Your task to perform on an android device: show emergency info Image 0: 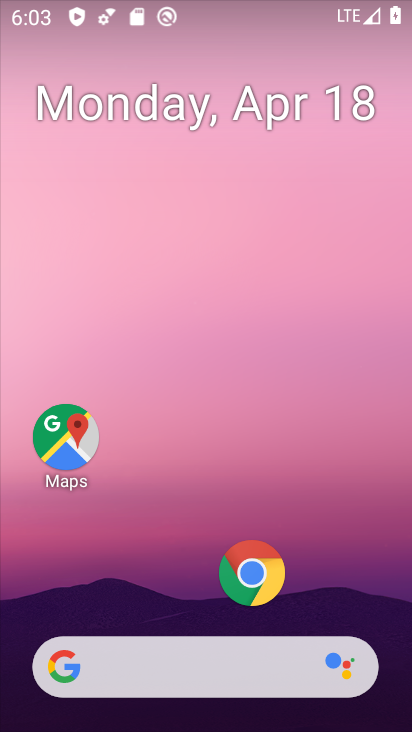
Step 0: click (309, 25)
Your task to perform on an android device: show emergency info Image 1: 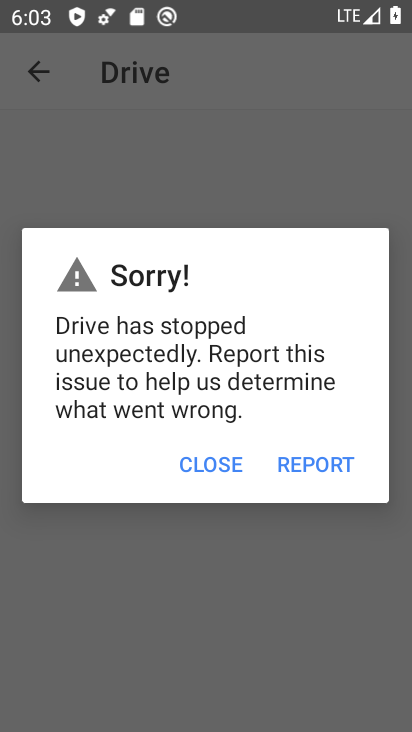
Step 1: click (208, 464)
Your task to perform on an android device: show emergency info Image 2: 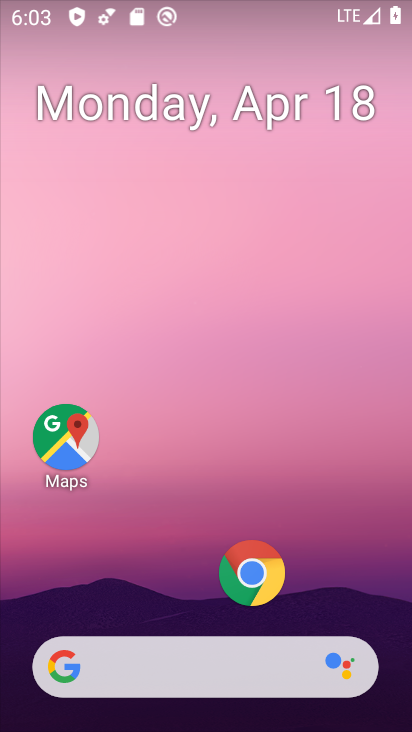
Step 2: drag from (165, 617) to (197, 212)
Your task to perform on an android device: show emergency info Image 3: 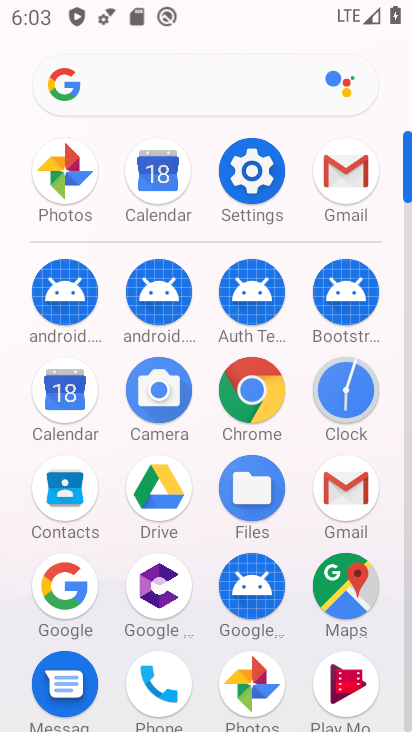
Step 3: click (252, 168)
Your task to perform on an android device: show emergency info Image 4: 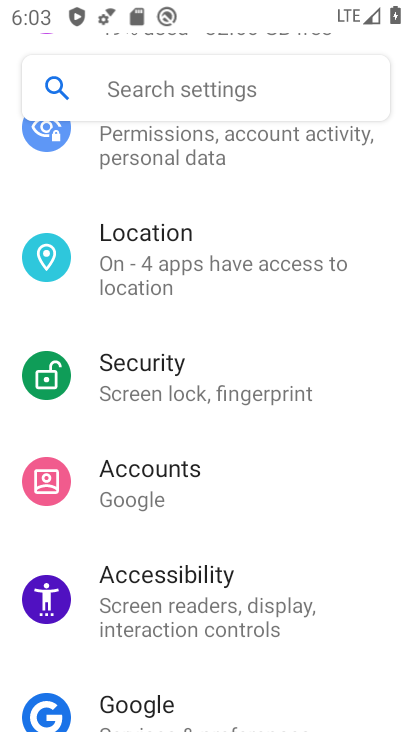
Step 4: drag from (167, 664) to (301, 135)
Your task to perform on an android device: show emergency info Image 5: 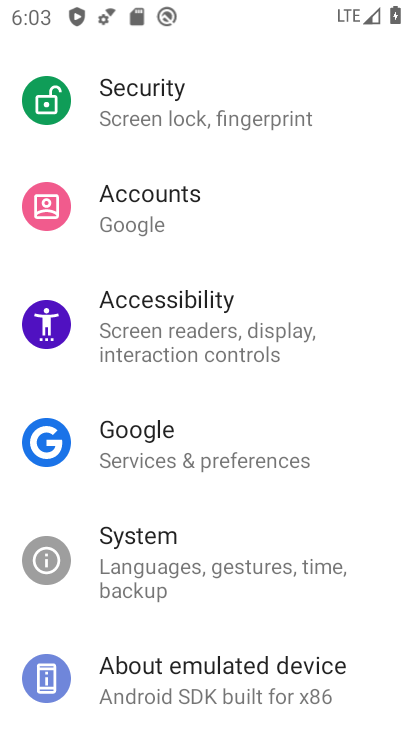
Step 5: click (196, 688)
Your task to perform on an android device: show emergency info Image 6: 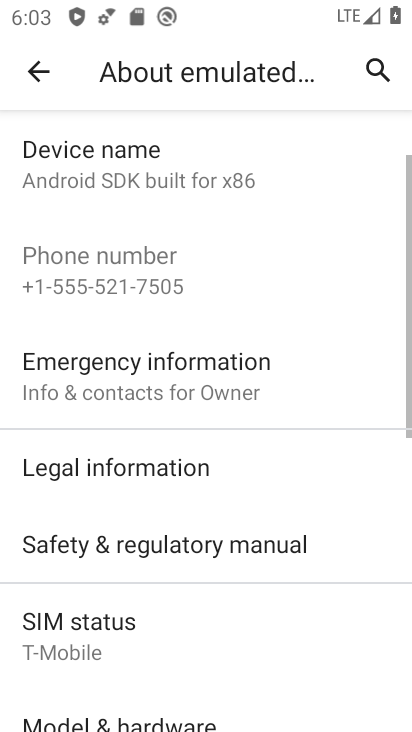
Step 6: click (144, 373)
Your task to perform on an android device: show emergency info Image 7: 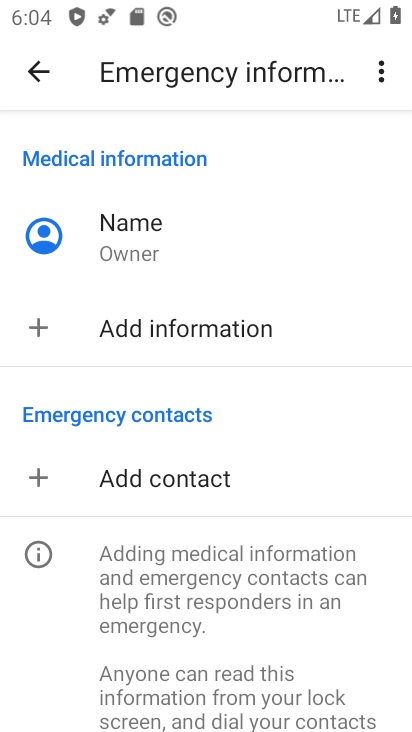
Step 7: task complete